Your task to perform on an android device: Open the stopwatch Image 0: 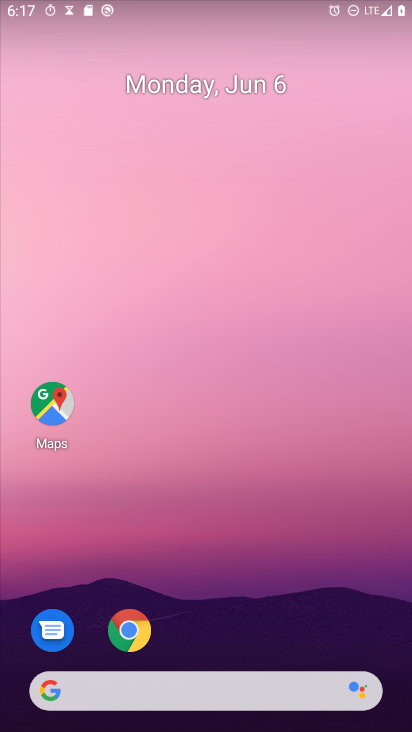
Step 0: press home button
Your task to perform on an android device: Open the stopwatch Image 1: 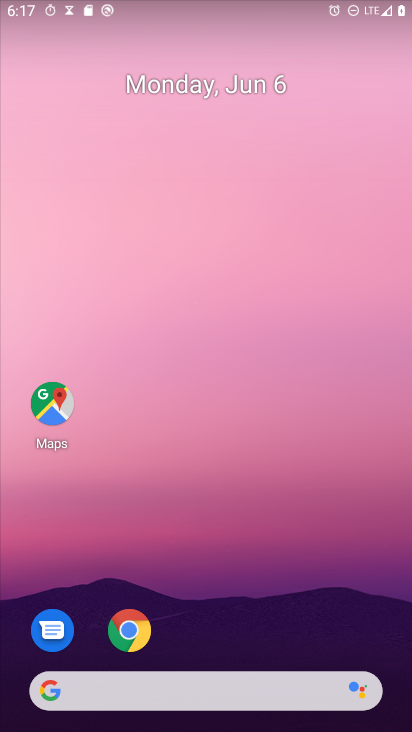
Step 1: drag from (278, 519) to (115, 5)
Your task to perform on an android device: Open the stopwatch Image 2: 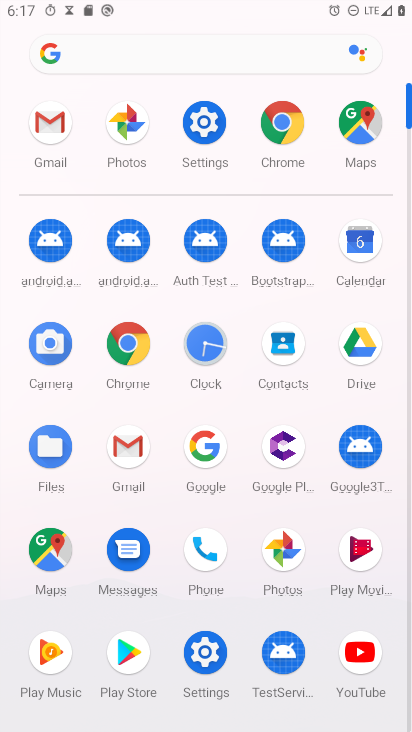
Step 2: click (199, 348)
Your task to perform on an android device: Open the stopwatch Image 3: 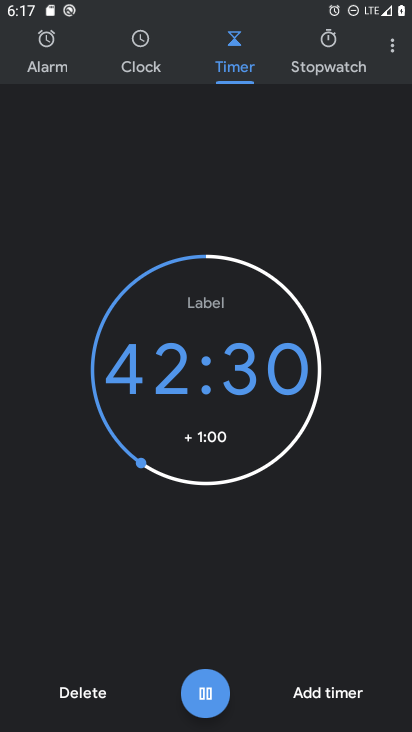
Step 3: click (324, 61)
Your task to perform on an android device: Open the stopwatch Image 4: 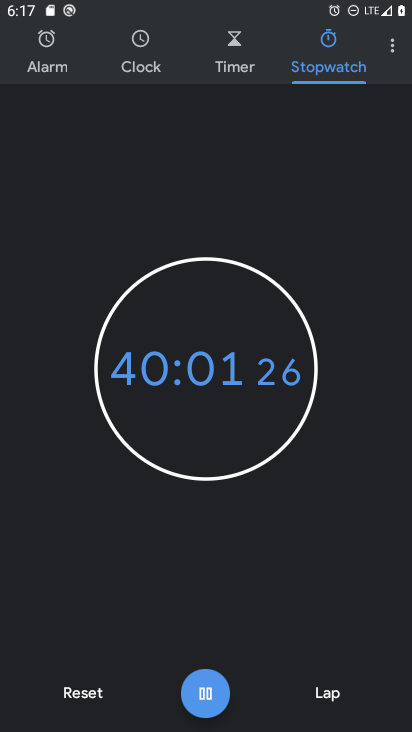
Step 4: task complete